Your task to perform on an android device: delete a single message in the gmail app Image 0: 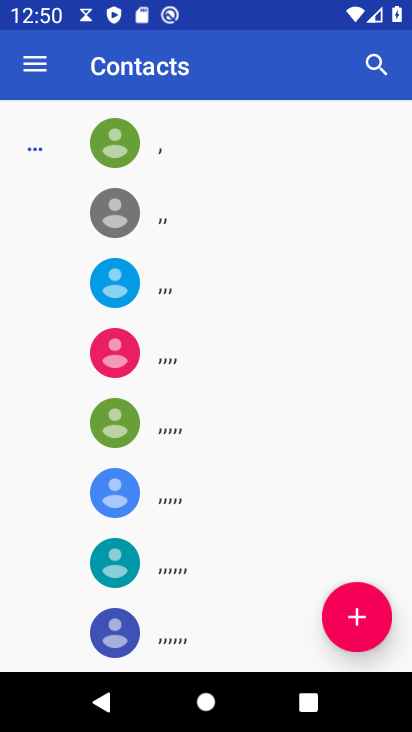
Step 0: press home button
Your task to perform on an android device: delete a single message in the gmail app Image 1: 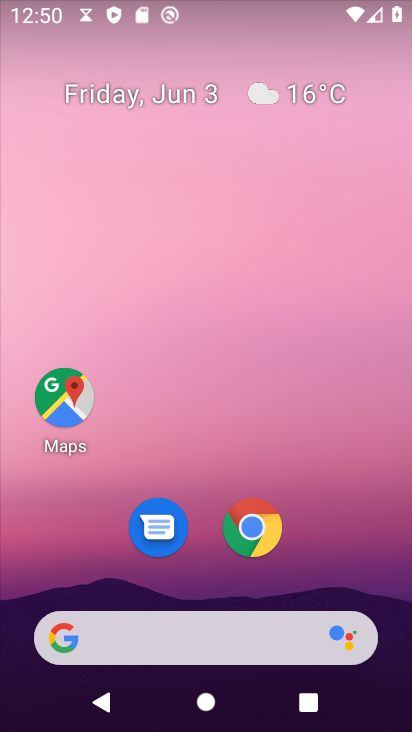
Step 1: drag from (348, 557) to (333, 131)
Your task to perform on an android device: delete a single message in the gmail app Image 2: 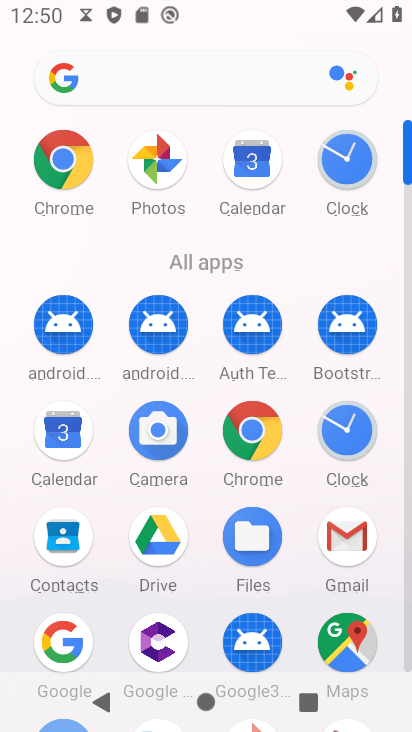
Step 2: click (341, 533)
Your task to perform on an android device: delete a single message in the gmail app Image 3: 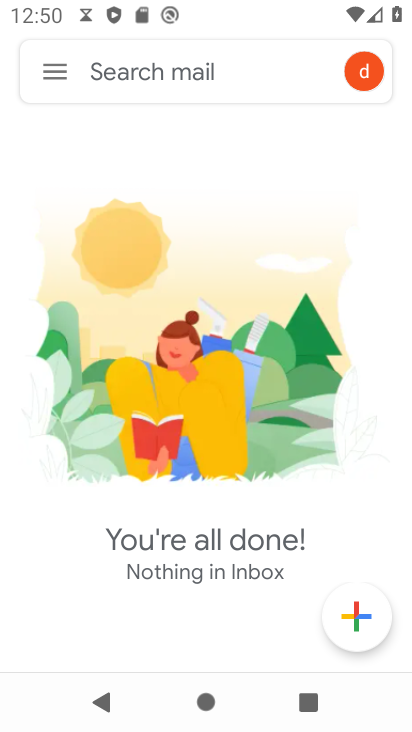
Step 3: task complete